Your task to perform on an android device: What's a good restaurant in San Francisco? Image 0: 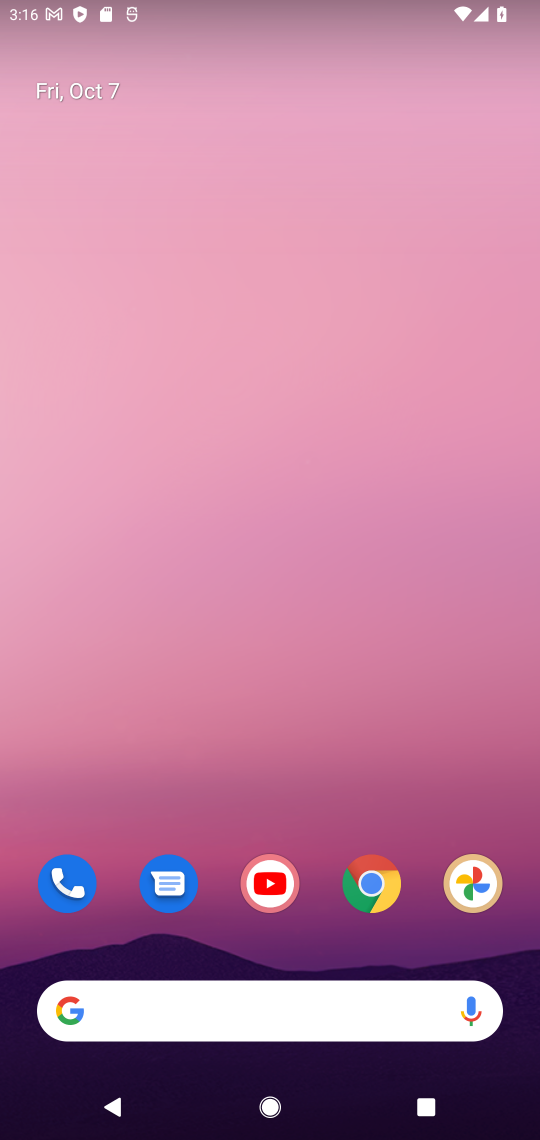
Step 0: click (386, 900)
Your task to perform on an android device: What's a good restaurant in San Francisco? Image 1: 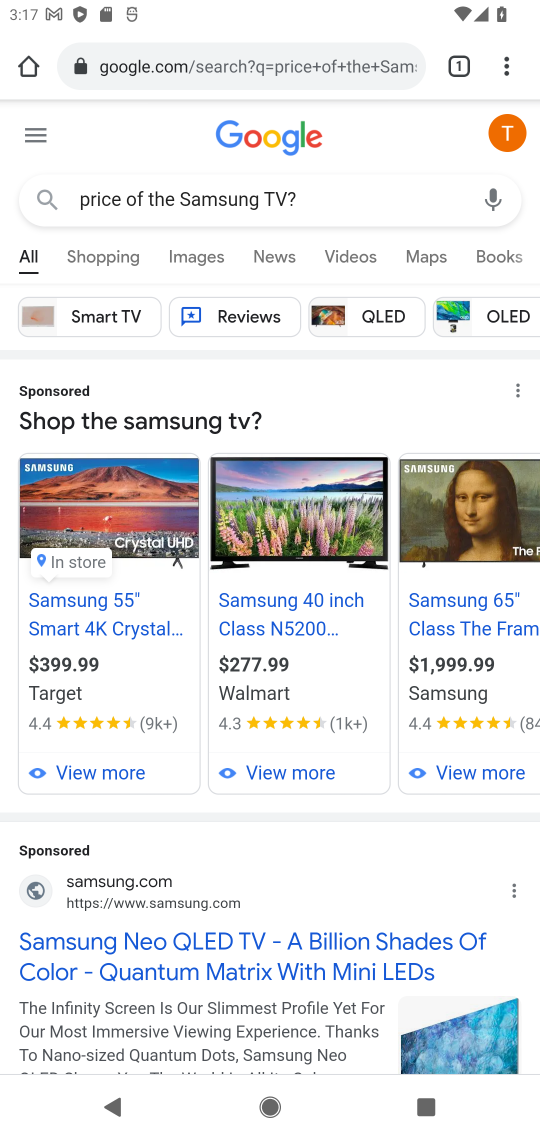
Step 1: click (359, 199)
Your task to perform on an android device: What's a good restaurant in San Francisco? Image 2: 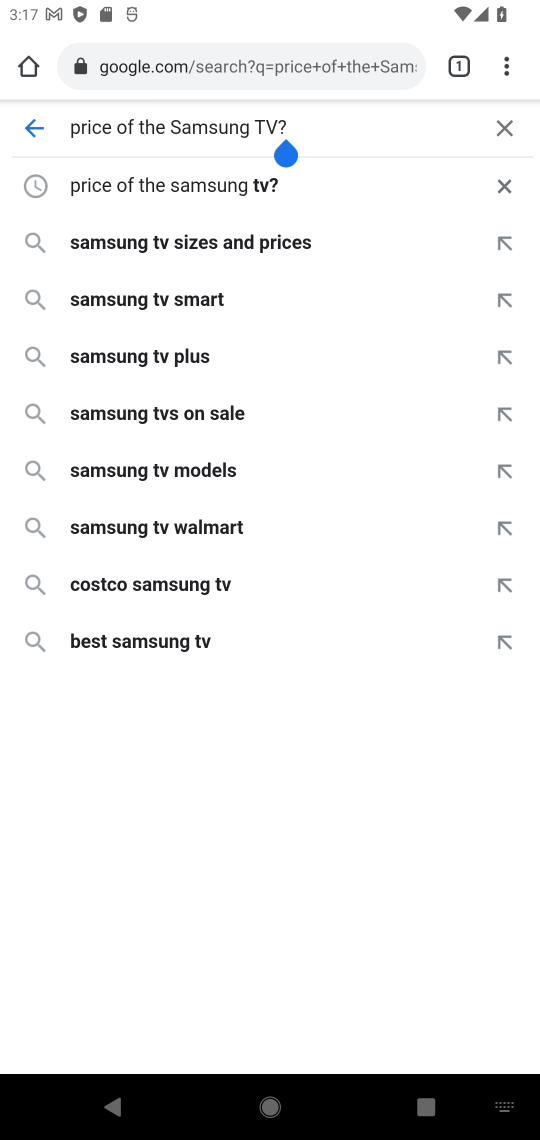
Step 2: click (498, 125)
Your task to perform on an android device: What's a good restaurant in San Francisco? Image 3: 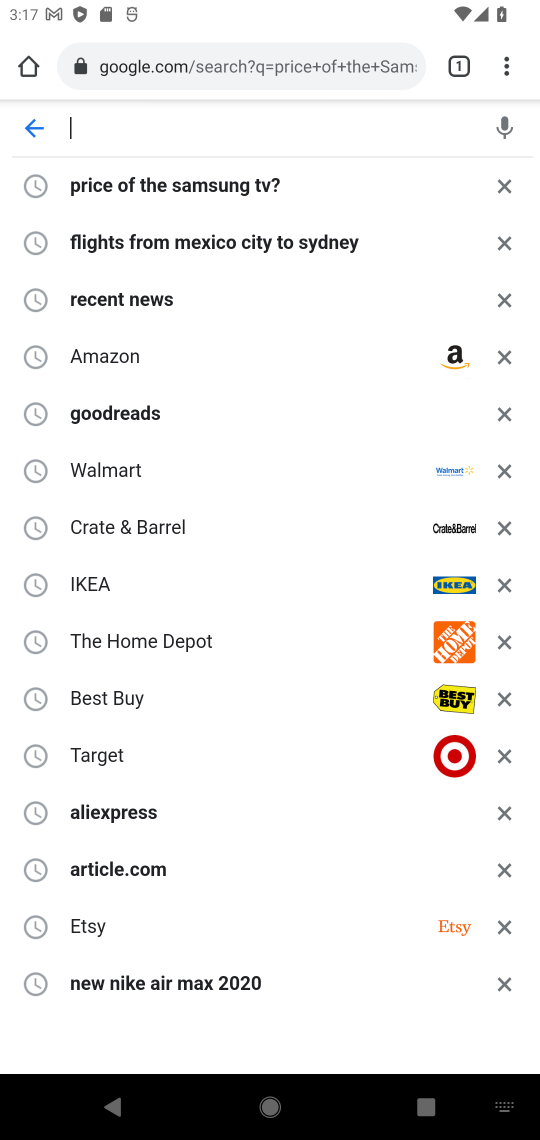
Step 3: type "good restaurant in San Francisco?"
Your task to perform on an android device: What's a good restaurant in San Francisco? Image 4: 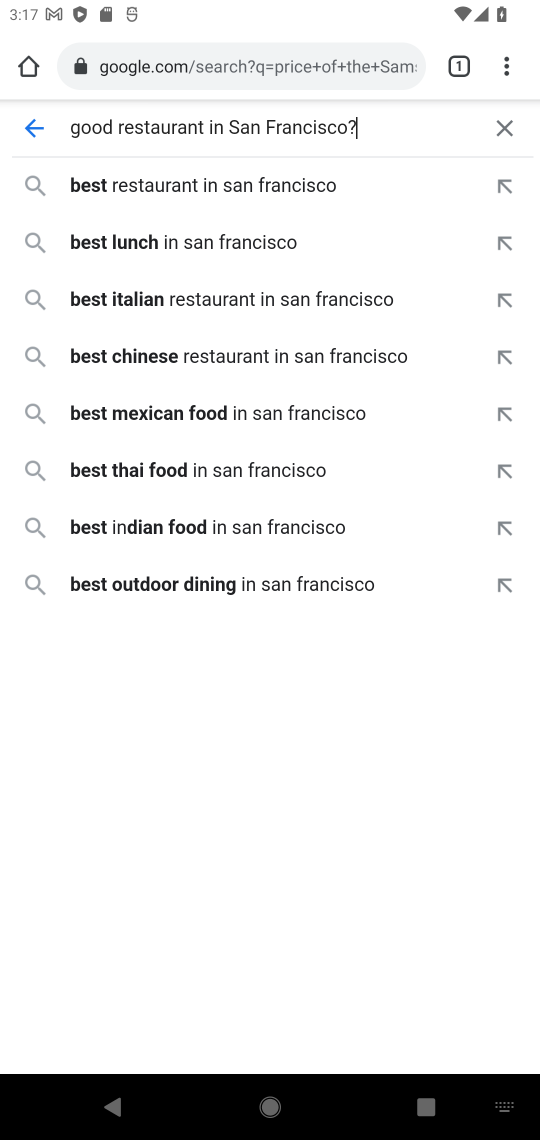
Step 4: press enter
Your task to perform on an android device: What's a good restaurant in San Francisco? Image 5: 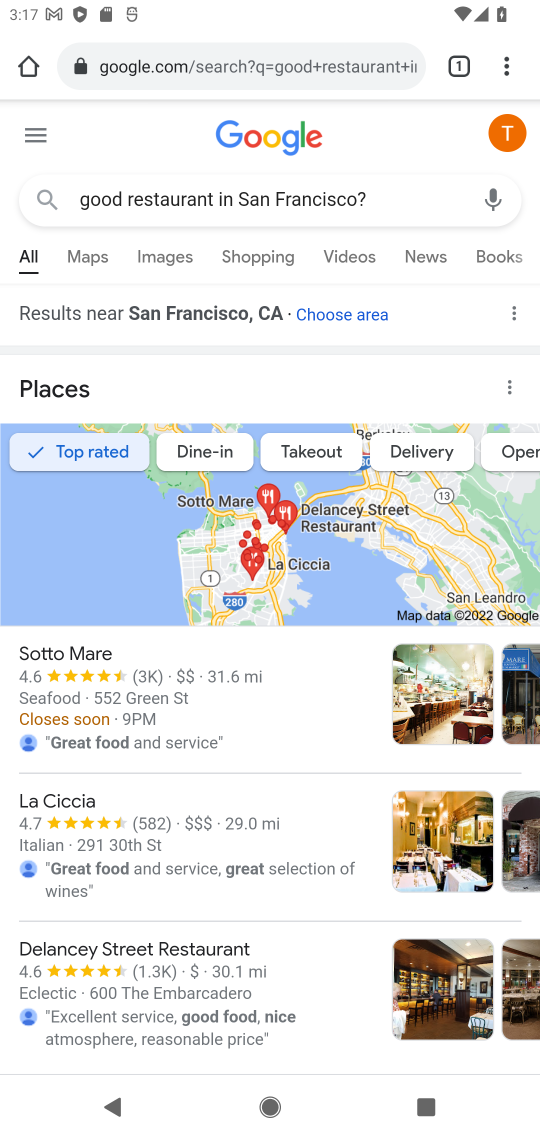
Step 5: task complete